Your task to perform on an android device: Open privacy settings Image 0: 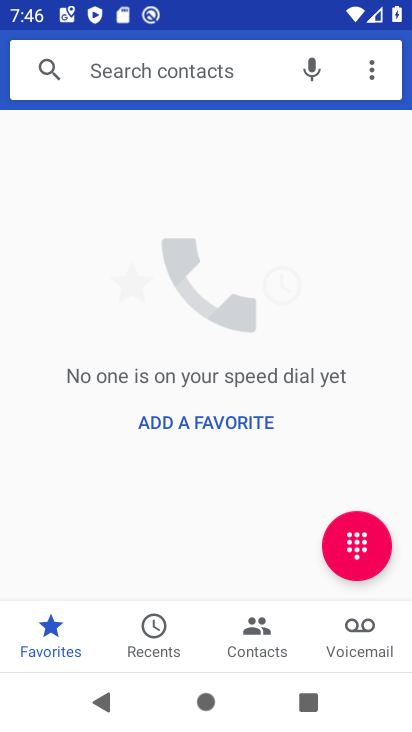
Step 0: press home button
Your task to perform on an android device: Open privacy settings Image 1: 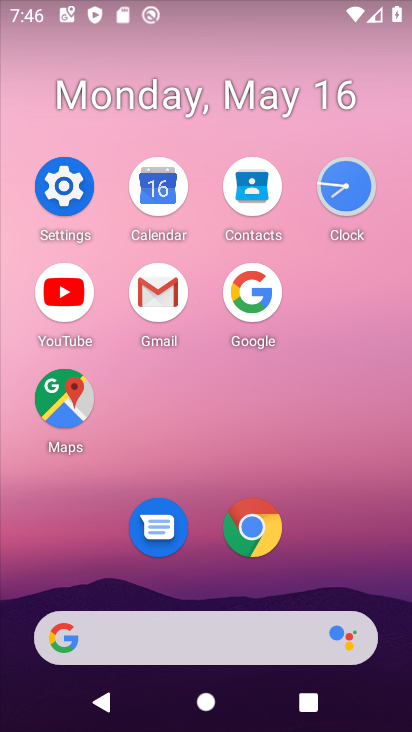
Step 1: click (62, 182)
Your task to perform on an android device: Open privacy settings Image 2: 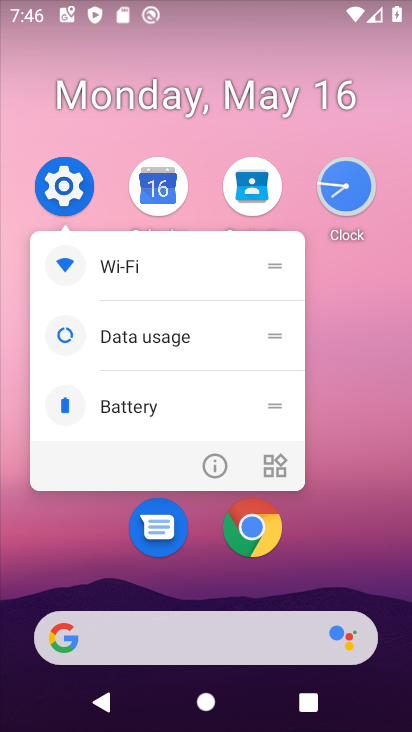
Step 2: click (62, 182)
Your task to perform on an android device: Open privacy settings Image 3: 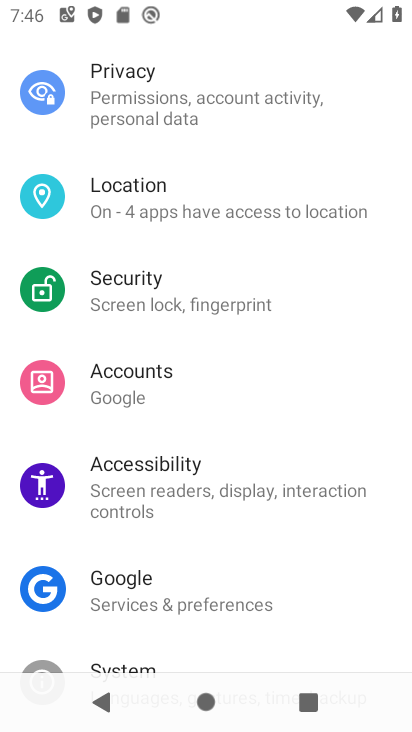
Step 3: drag from (390, 294) to (386, 586)
Your task to perform on an android device: Open privacy settings Image 4: 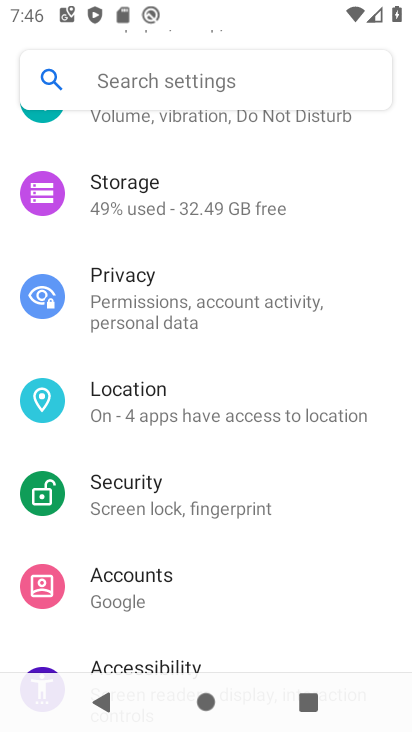
Step 4: click (231, 296)
Your task to perform on an android device: Open privacy settings Image 5: 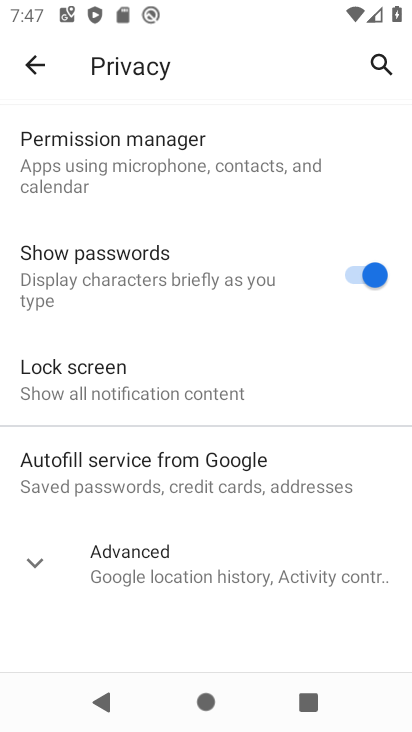
Step 5: task complete